Your task to perform on an android device: Go to Android settings Image 0: 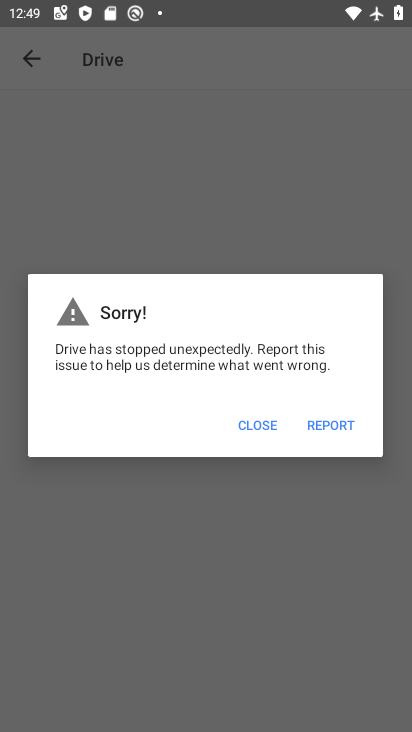
Step 0: press home button
Your task to perform on an android device: Go to Android settings Image 1: 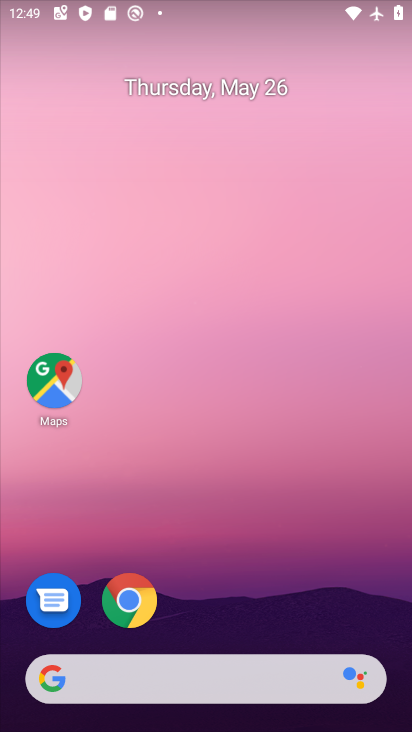
Step 1: drag from (271, 555) to (220, 92)
Your task to perform on an android device: Go to Android settings Image 2: 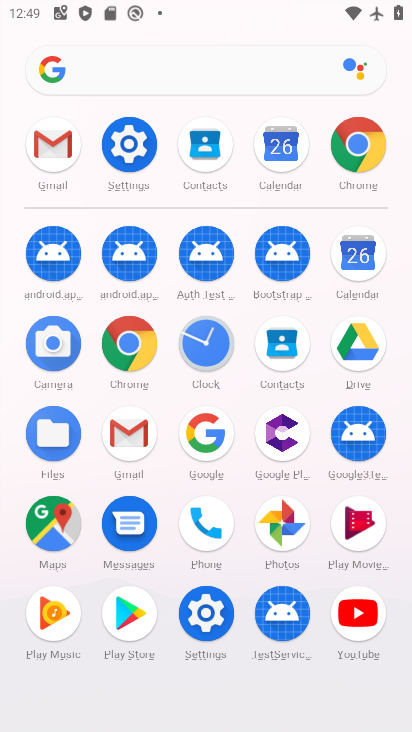
Step 2: click (140, 145)
Your task to perform on an android device: Go to Android settings Image 3: 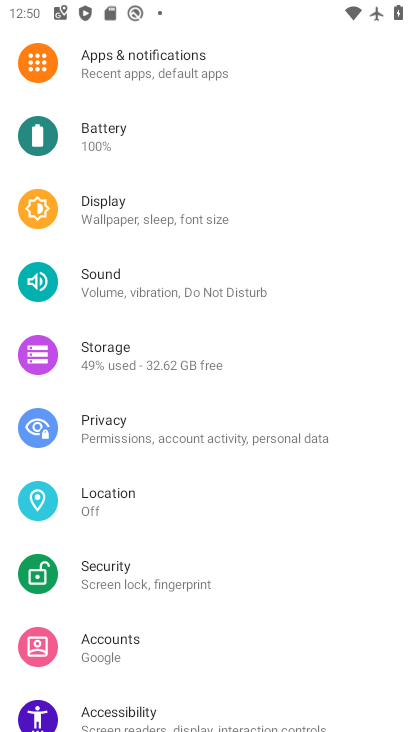
Step 3: task complete